Your task to perform on an android device: turn off priority inbox in the gmail app Image 0: 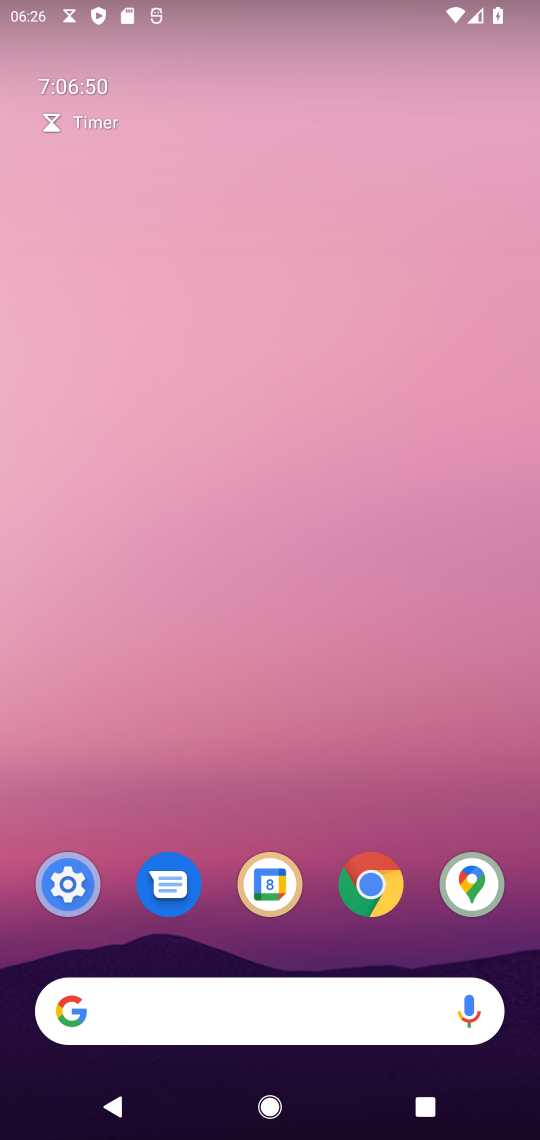
Step 0: drag from (402, 816) to (278, 150)
Your task to perform on an android device: turn off priority inbox in the gmail app Image 1: 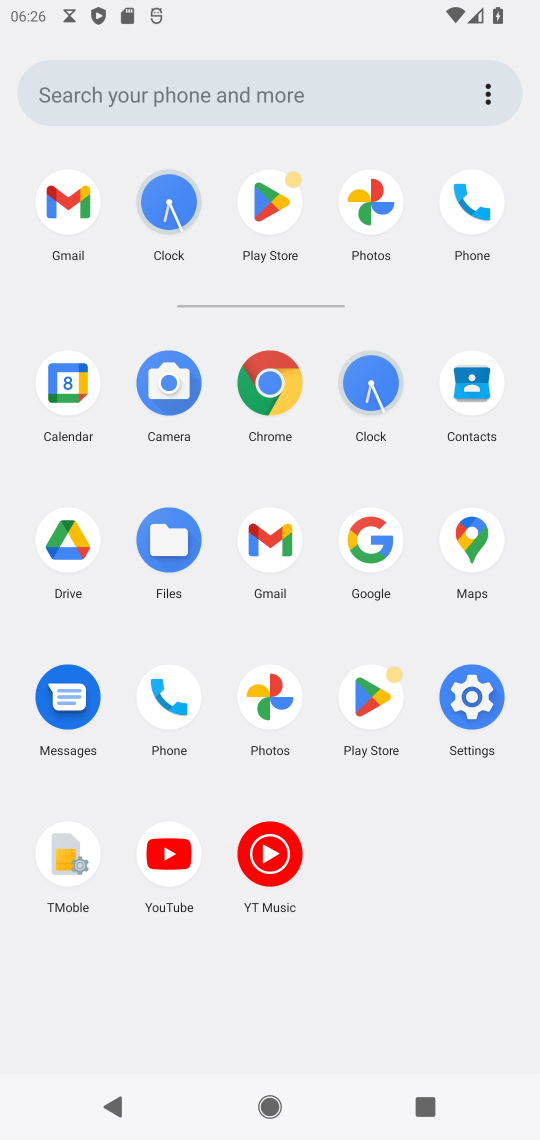
Step 1: click (50, 212)
Your task to perform on an android device: turn off priority inbox in the gmail app Image 2: 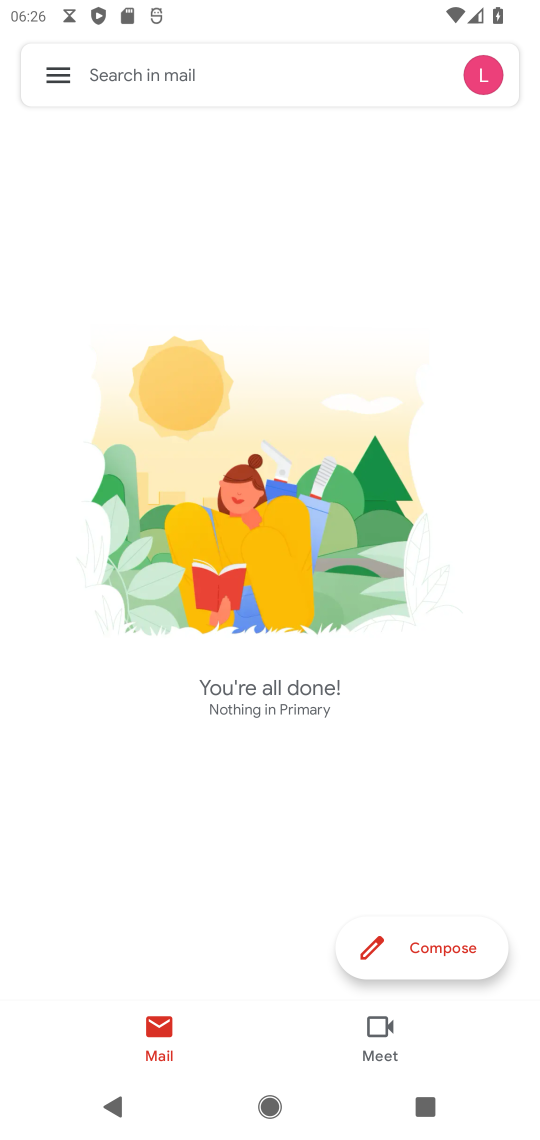
Step 2: click (49, 77)
Your task to perform on an android device: turn off priority inbox in the gmail app Image 3: 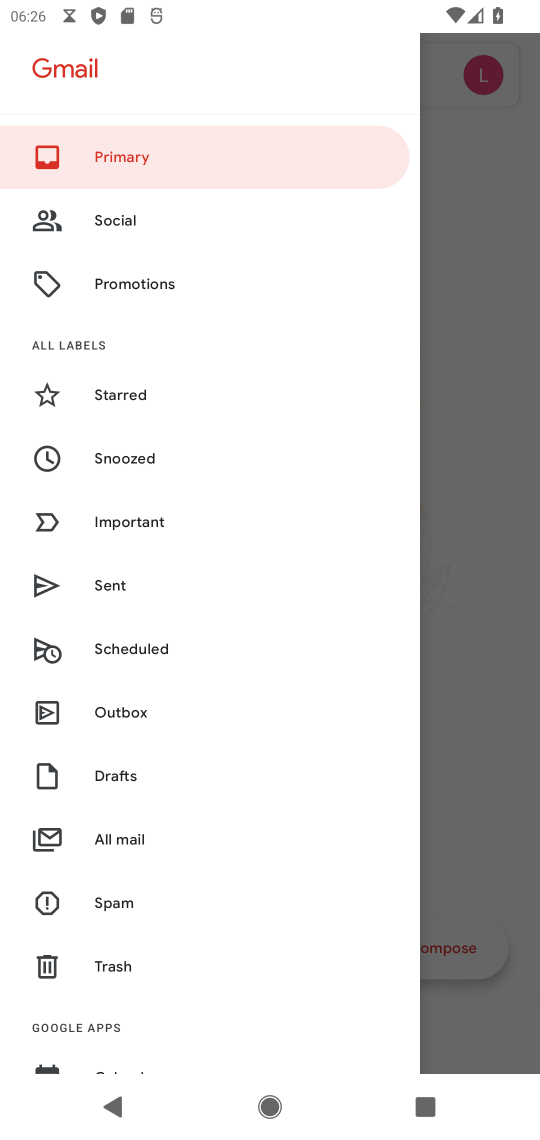
Step 3: drag from (165, 1043) to (139, 427)
Your task to perform on an android device: turn off priority inbox in the gmail app Image 4: 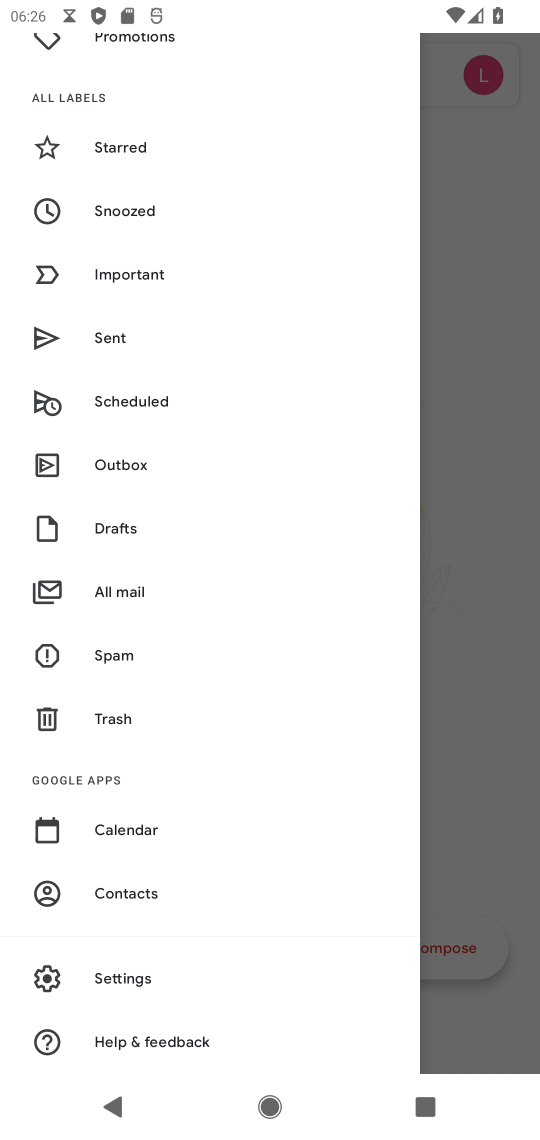
Step 4: click (155, 987)
Your task to perform on an android device: turn off priority inbox in the gmail app Image 5: 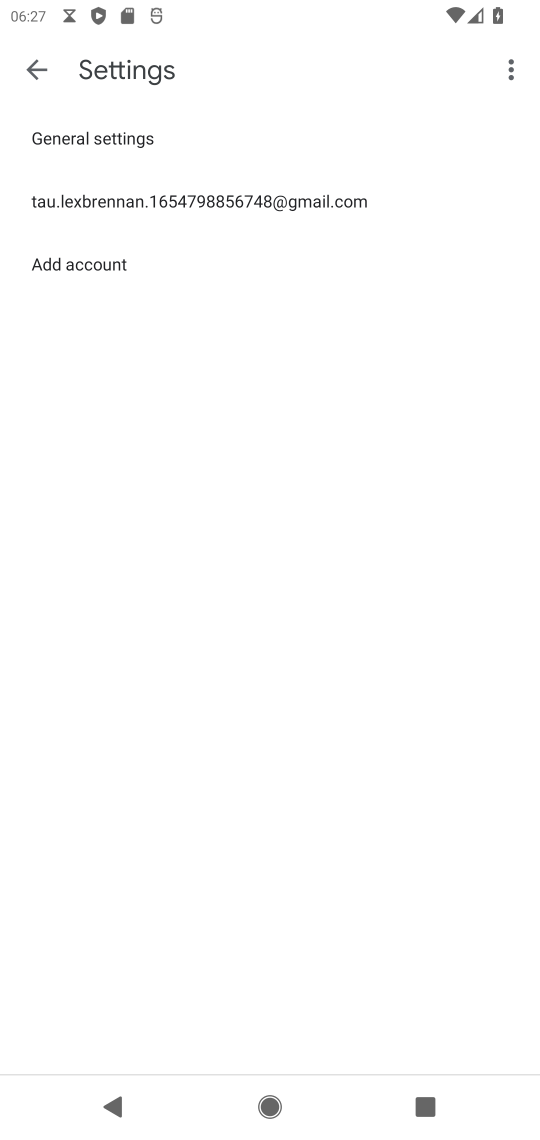
Step 5: click (332, 209)
Your task to perform on an android device: turn off priority inbox in the gmail app Image 6: 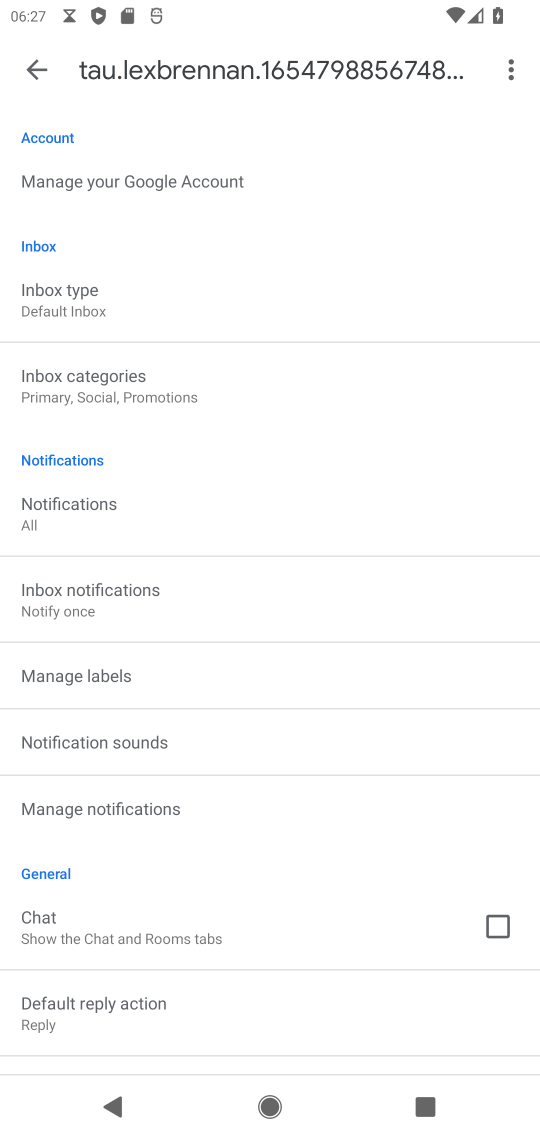
Step 6: click (221, 293)
Your task to perform on an android device: turn off priority inbox in the gmail app Image 7: 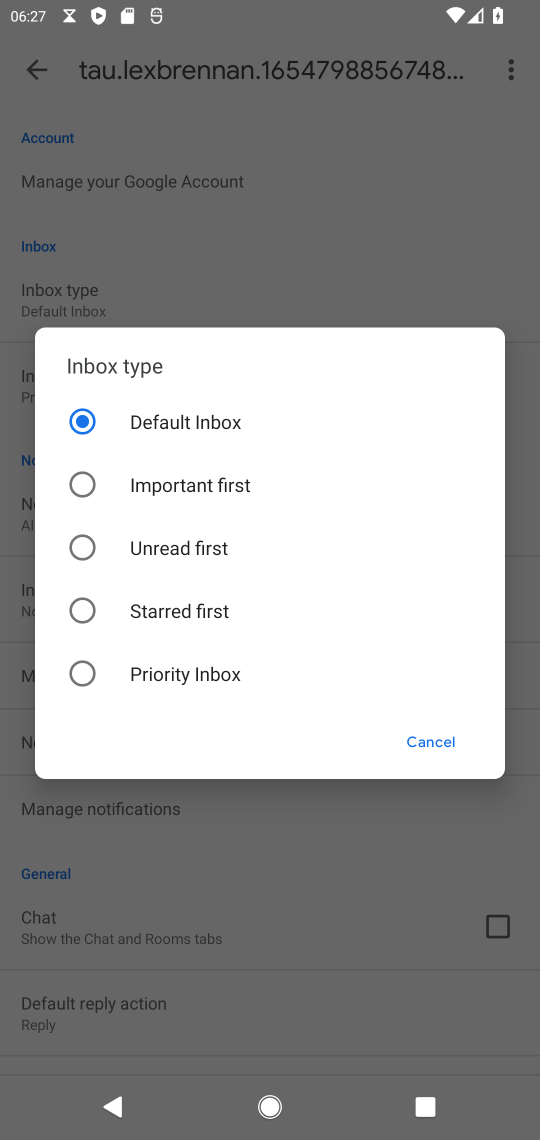
Step 7: task complete